Your task to perform on an android device: Open settings on Google Maps Image 0: 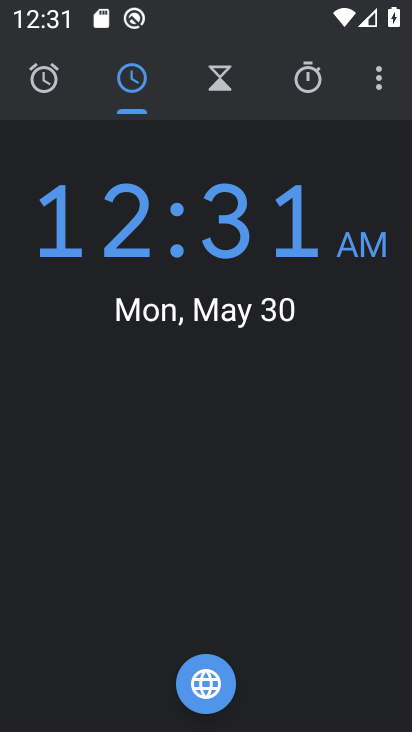
Step 0: press home button
Your task to perform on an android device: Open settings on Google Maps Image 1: 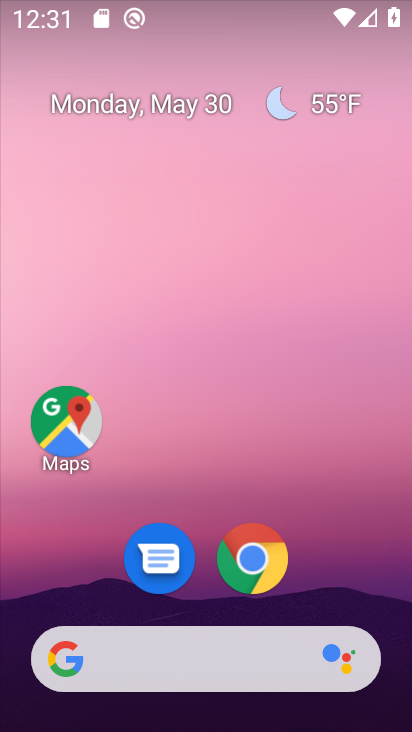
Step 1: drag from (378, 554) to (387, 10)
Your task to perform on an android device: Open settings on Google Maps Image 2: 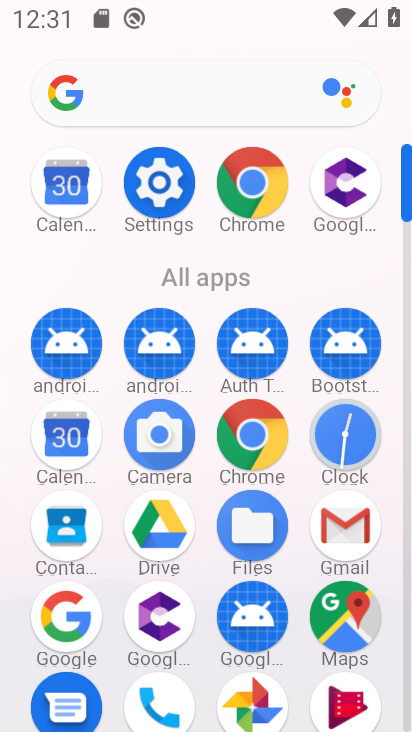
Step 2: drag from (389, 477) to (394, 209)
Your task to perform on an android device: Open settings on Google Maps Image 3: 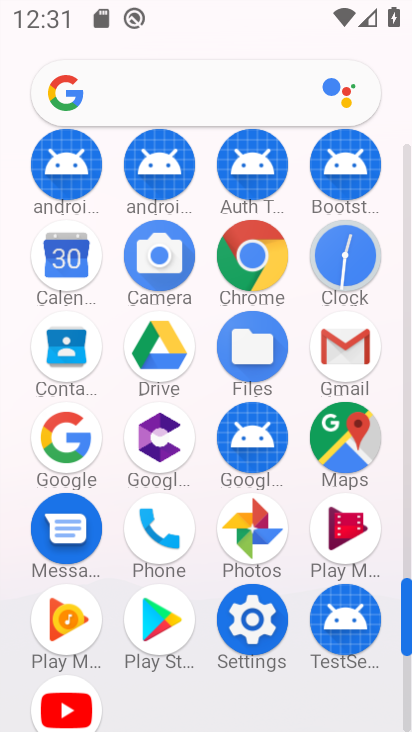
Step 3: click (368, 437)
Your task to perform on an android device: Open settings on Google Maps Image 4: 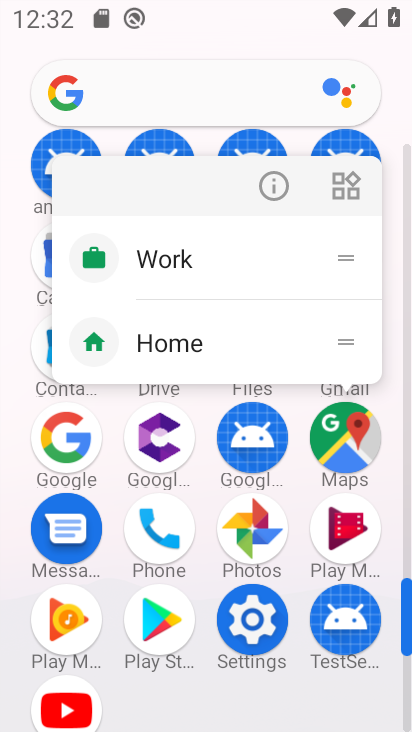
Step 4: click (368, 436)
Your task to perform on an android device: Open settings on Google Maps Image 5: 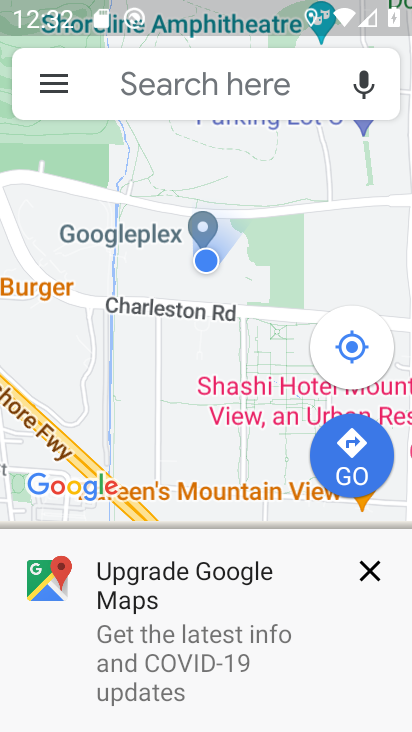
Step 5: click (39, 72)
Your task to perform on an android device: Open settings on Google Maps Image 6: 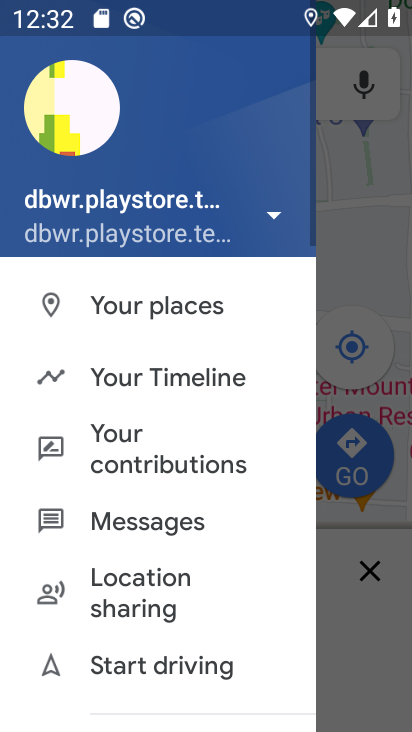
Step 6: drag from (147, 518) to (118, 150)
Your task to perform on an android device: Open settings on Google Maps Image 7: 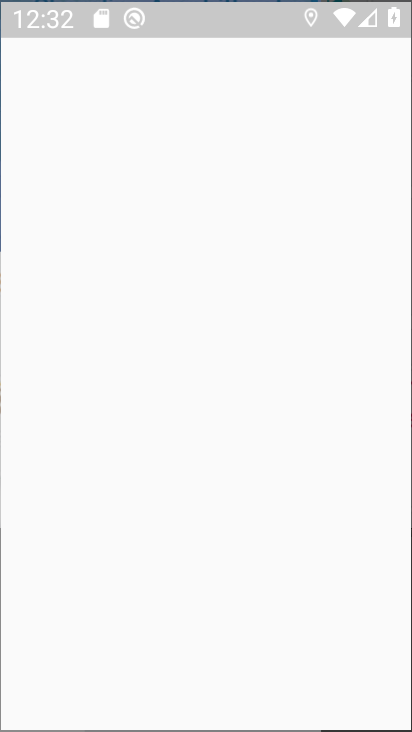
Step 7: drag from (56, 550) to (129, 235)
Your task to perform on an android device: Open settings on Google Maps Image 8: 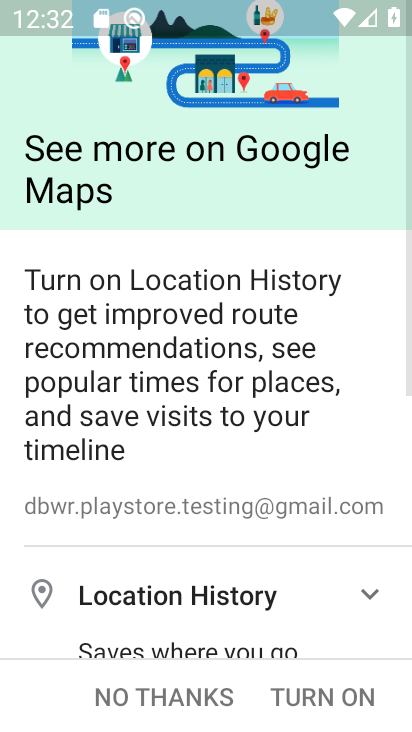
Step 8: press back button
Your task to perform on an android device: Open settings on Google Maps Image 9: 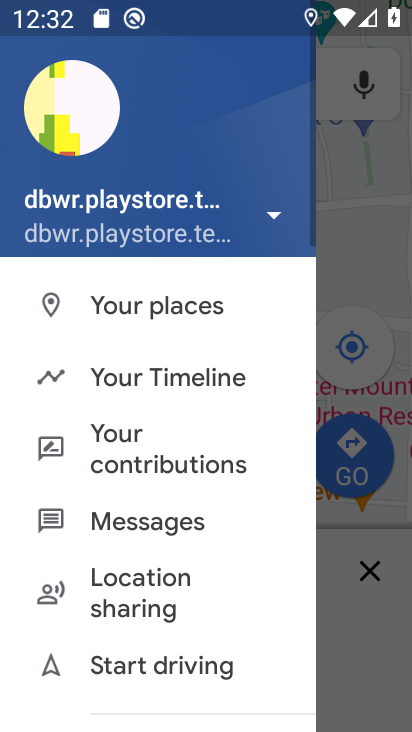
Step 9: click (180, 322)
Your task to perform on an android device: Open settings on Google Maps Image 10: 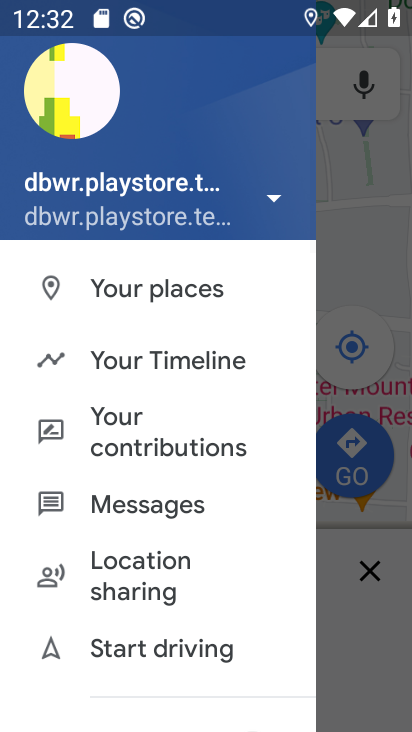
Step 10: drag from (193, 662) to (222, 314)
Your task to perform on an android device: Open settings on Google Maps Image 11: 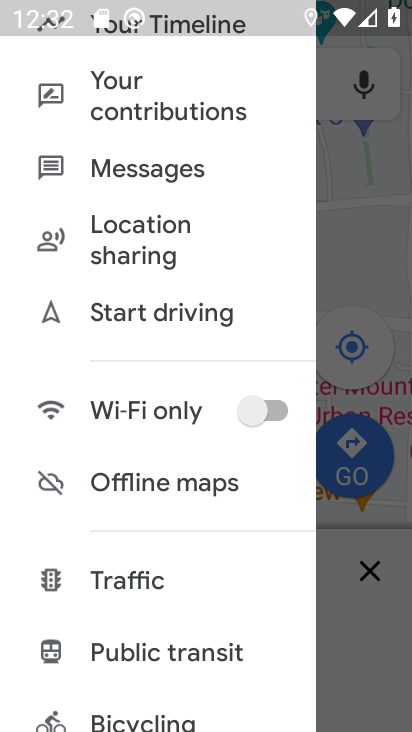
Step 11: drag from (166, 690) to (196, 270)
Your task to perform on an android device: Open settings on Google Maps Image 12: 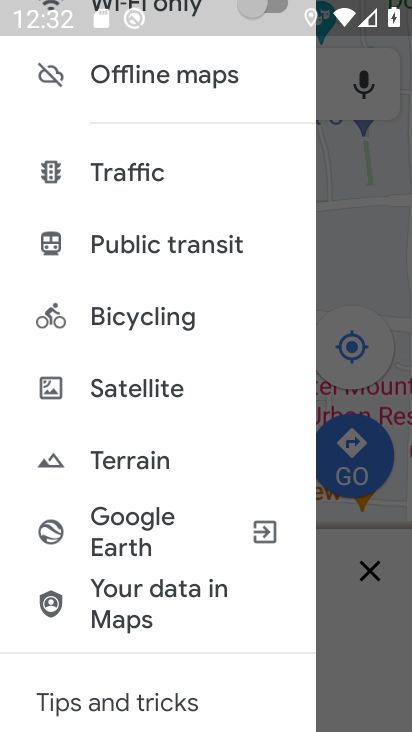
Step 12: drag from (158, 582) to (219, 212)
Your task to perform on an android device: Open settings on Google Maps Image 13: 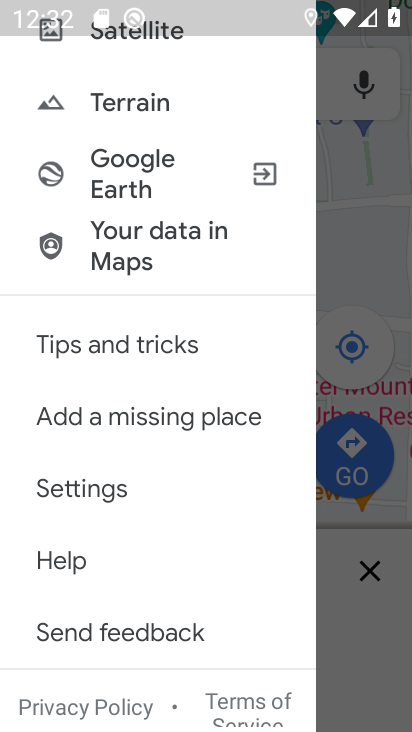
Step 13: click (105, 508)
Your task to perform on an android device: Open settings on Google Maps Image 14: 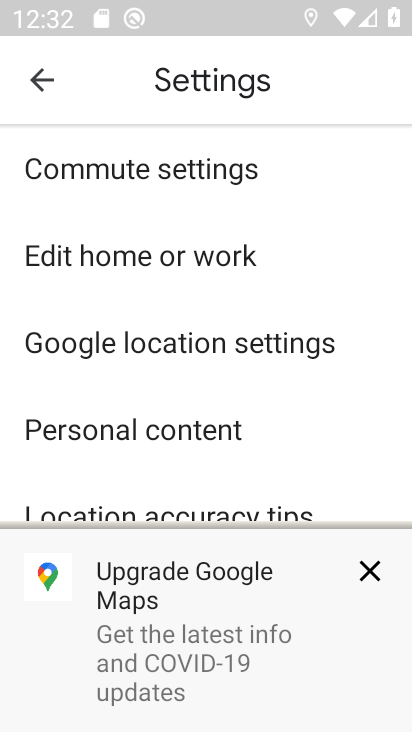
Step 14: click (365, 565)
Your task to perform on an android device: Open settings on Google Maps Image 15: 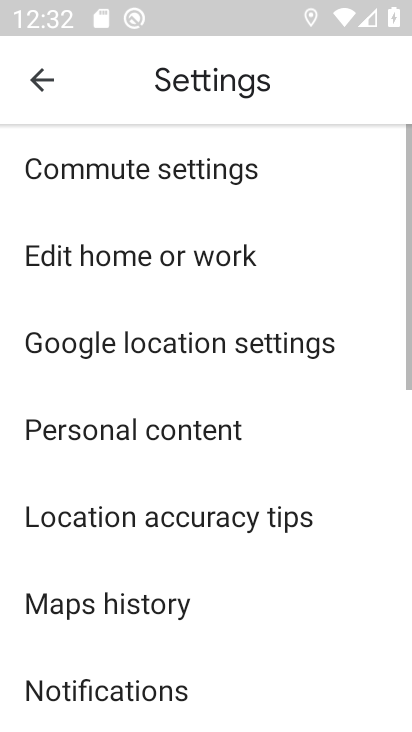
Step 15: task complete